Your task to perform on an android device: remove spam from my inbox in the gmail app Image 0: 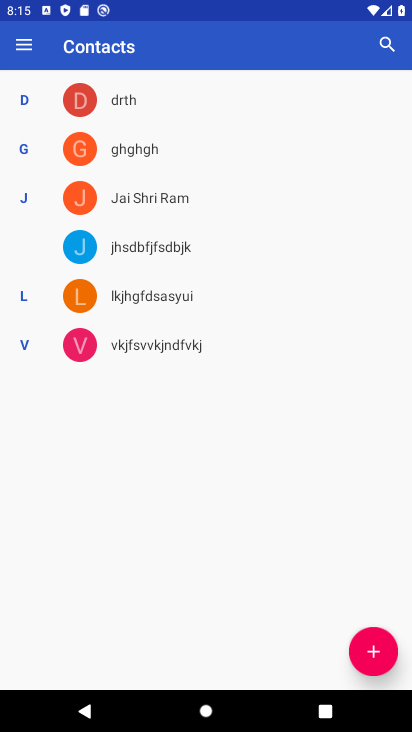
Step 0: press home button
Your task to perform on an android device: remove spam from my inbox in the gmail app Image 1: 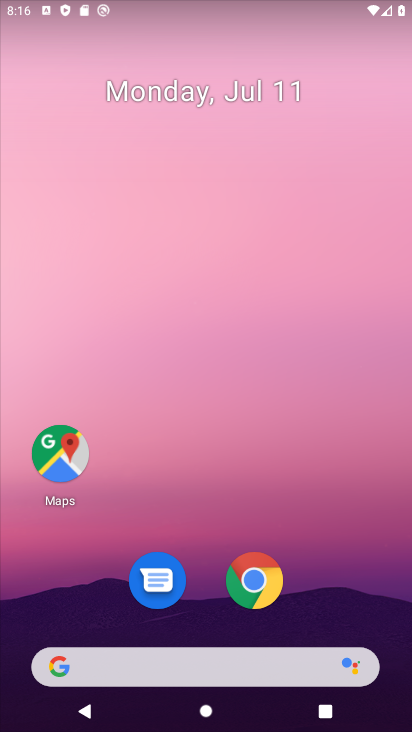
Step 1: drag from (322, 599) to (277, 32)
Your task to perform on an android device: remove spam from my inbox in the gmail app Image 2: 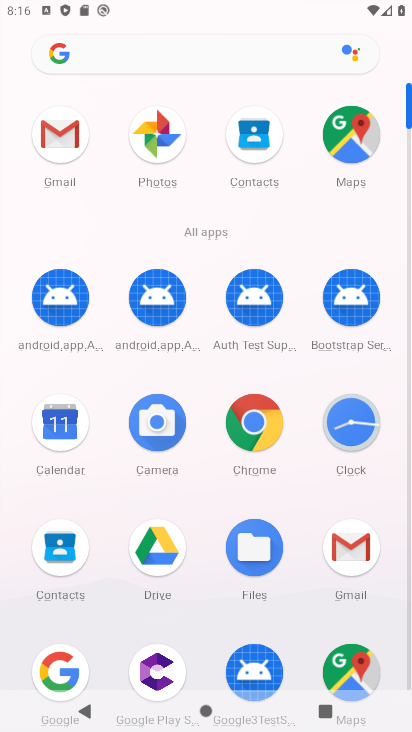
Step 2: click (63, 251)
Your task to perform on an android device: remove spam from my inbox in the gmail app Image 3: 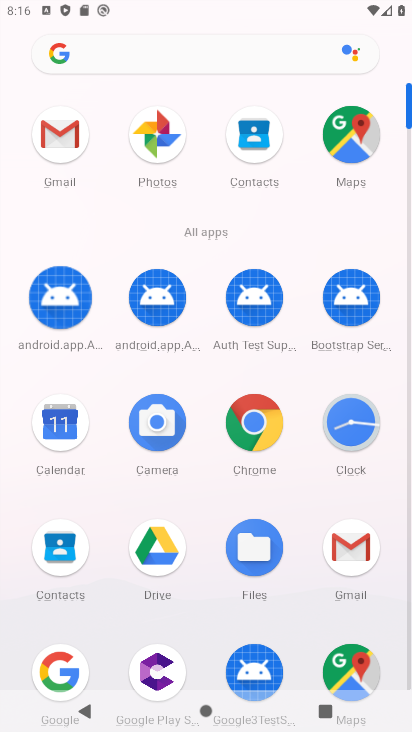
Step 3: click (65, 134)
Your task to perform on an android device: remove spam from my inbox in the gmail app Image 4: 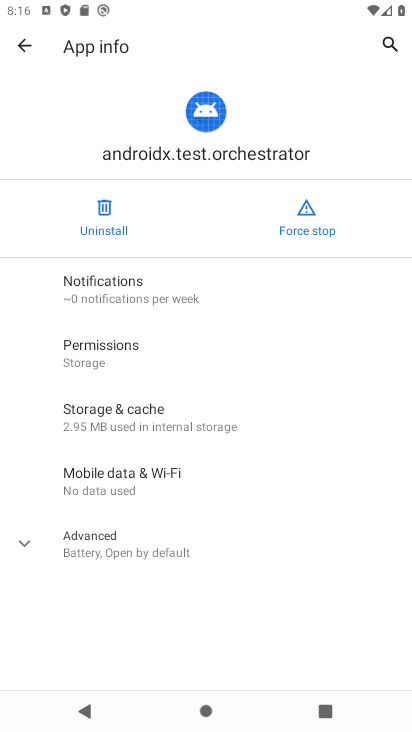
Step 4: click (30, 37)
Your task to perform on an android device: remove spam from my inbox in the gmail app Image 5: 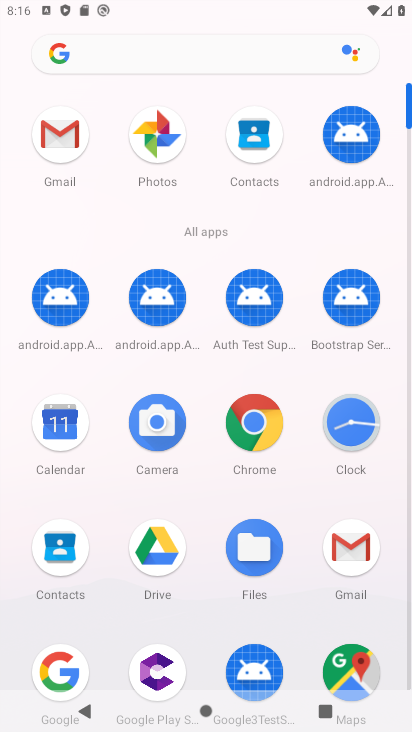
Step 5: click (73, 139)
Your task to perform on an android device: remove spam from my inbox in the gmail app Image 6: 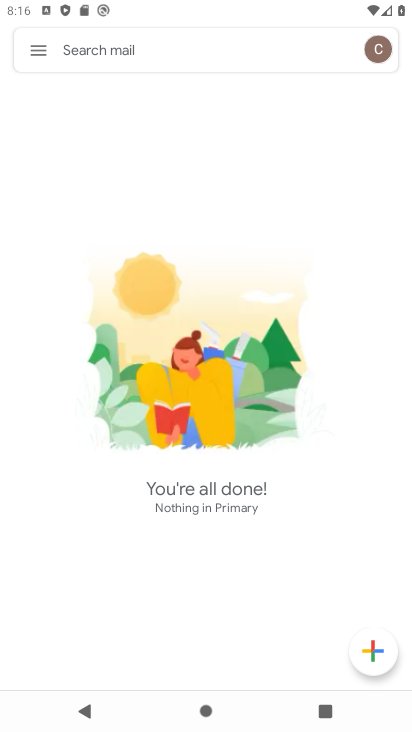
Step 6: task complete